Your task to perform on an android device: refresh tabs in the chrome app Image 0: 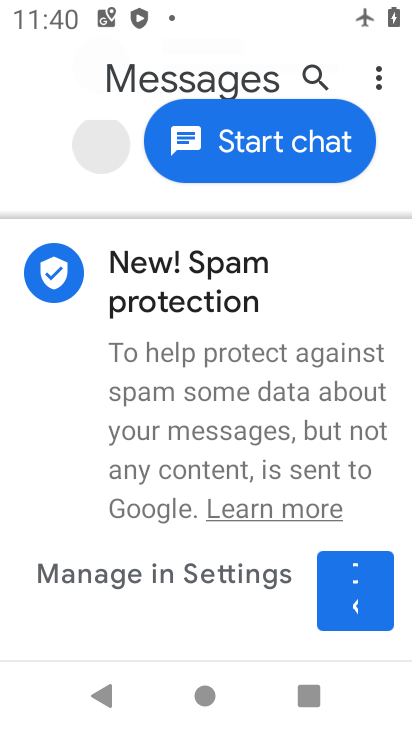
Step 0: press home button
Your task to perform on an android device: refresh tabs in the chrome app Image 1: 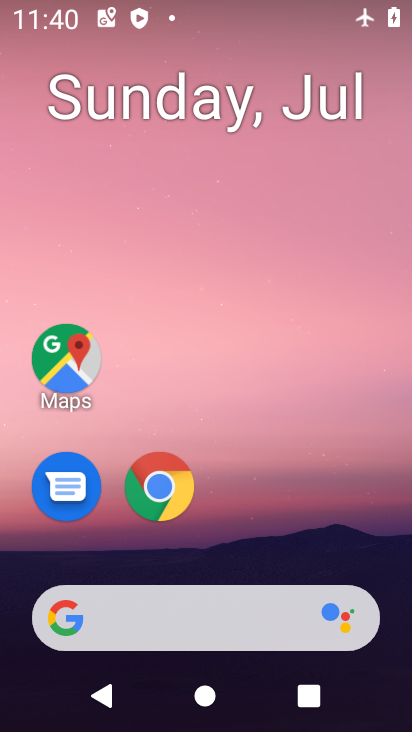
Step 1: drag from (372, 543) to (349, 106)
Your task to perform on an android device: refresh tabs in the chrome app Image 2: 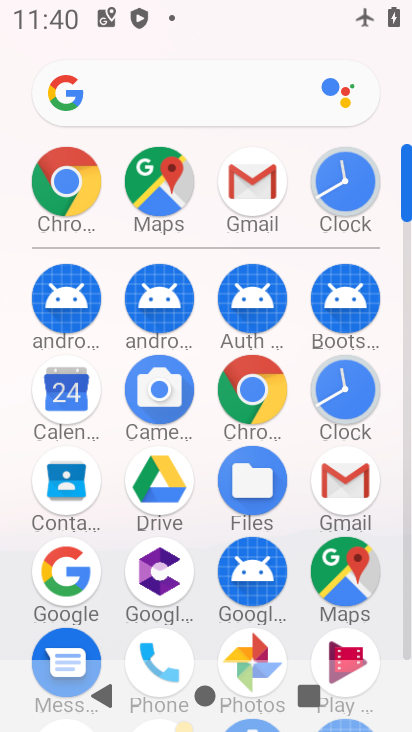
Step 2: click (254, 411)
Your task to perform on an android device: refresh tabs in the chrome app Image 3: 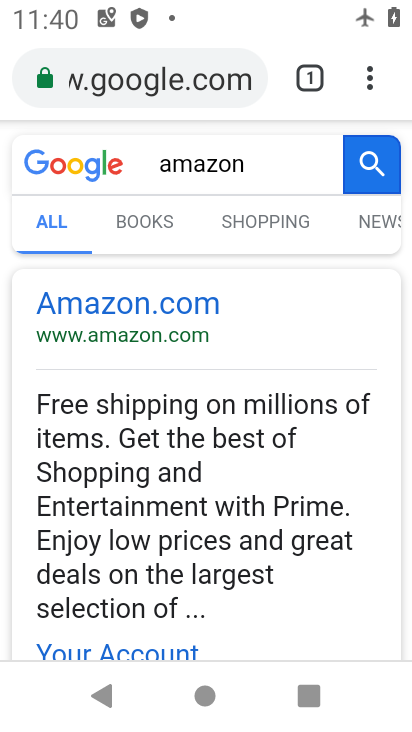
Step 3: click (365, 82)
Your task to perform on an android device: refresh tabs in the chrome app Image 4: 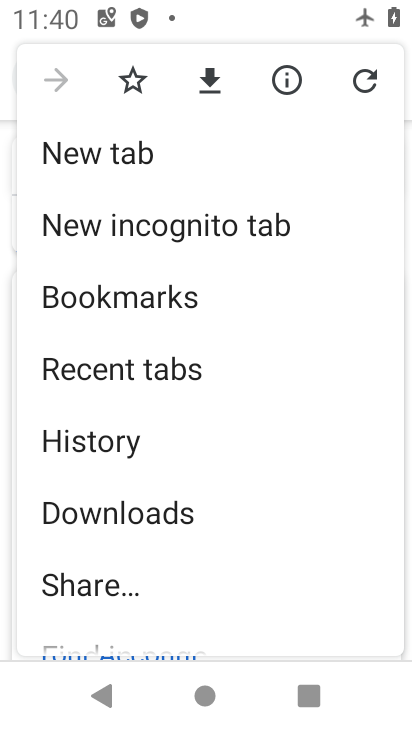
Step 4: click (365, 82)
Your task to perform on an android device: refresh tabs in the chrome app Image 5: 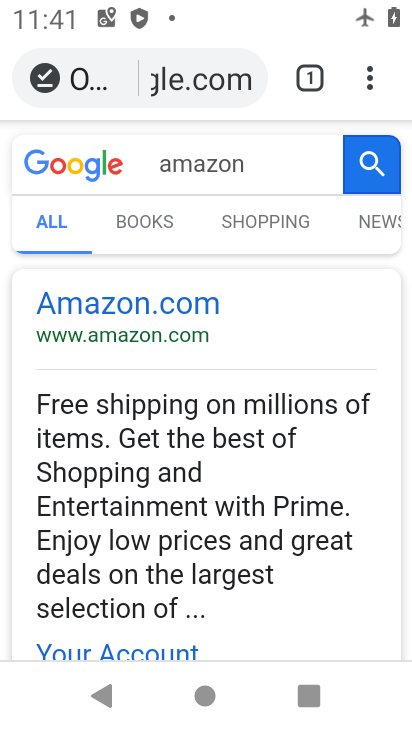
Step 5: task complete